Your task to perform on an android device: change the clock display to analog Image 0: 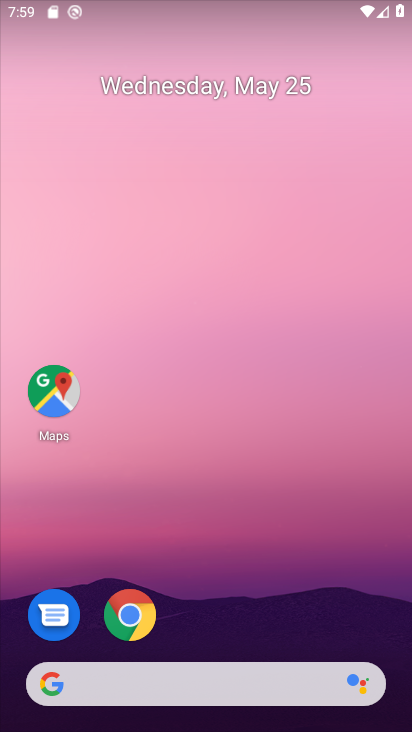
Step 0: drag from (240, 569) to (240, 40)
Your task to perform on an android device: change the clock display to analog Image 1: 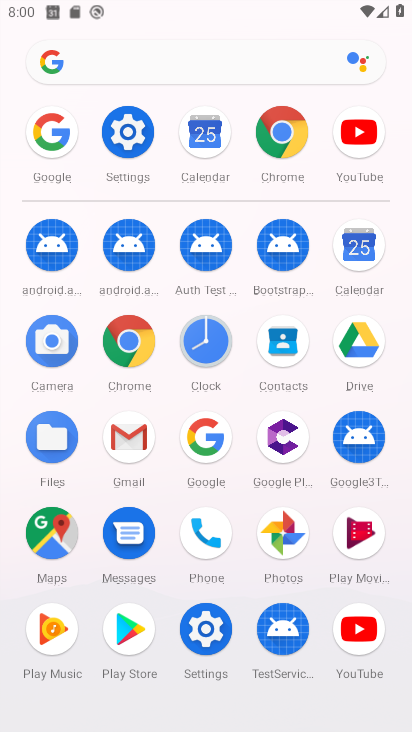
Step 1: drag from (5, 616) to (8, 207)
Your task to perform on an android device: change the clock display to analog Image 2: 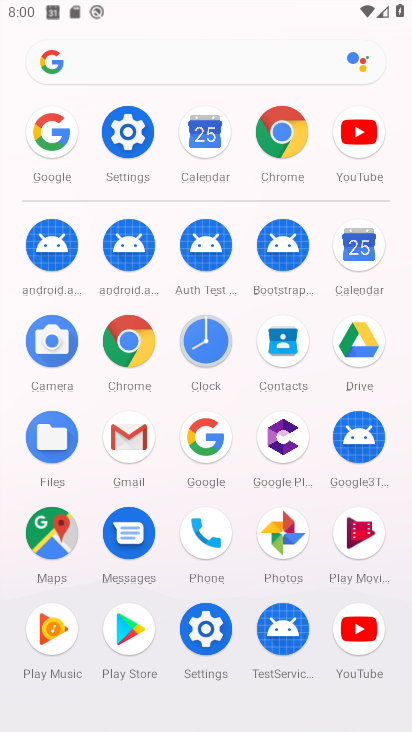
Step 2: click (205, 342)
Your task to perform on an android device: change the clock display to analog Image 3: 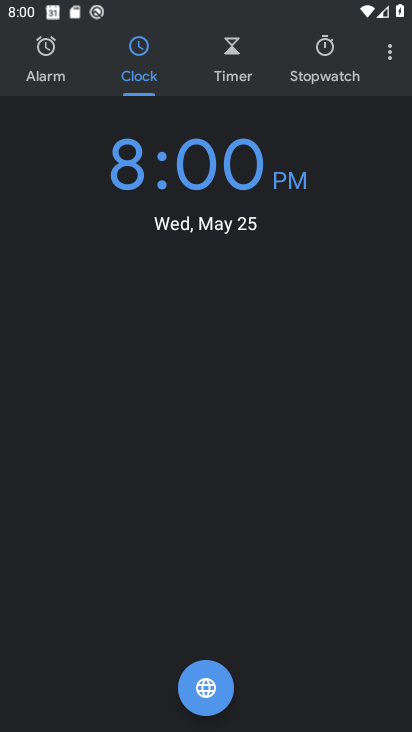
Step 3: drag from (390, 46) to (323, 96)
Your task to perform on an android device: change the clock display to analog Image 4: 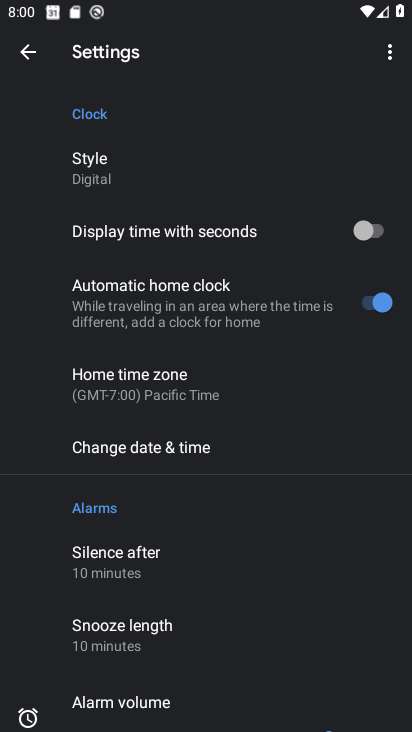
Step 4: click (137, 166)
Your task to perform on an android device: change the clock display to analog Image 5: 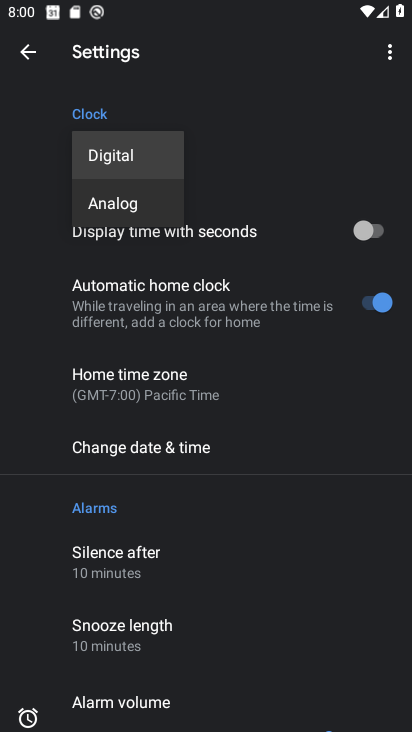
Step 5: click (140, 197)
Your task to perform on an android device: change the clock display to analog Image 6: 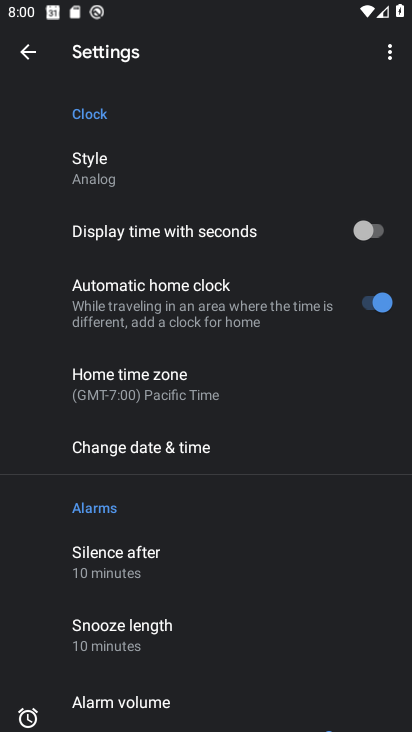
Step 6: task complete